Your task to perform on an android device: Go to Yahoo.com Image 0: 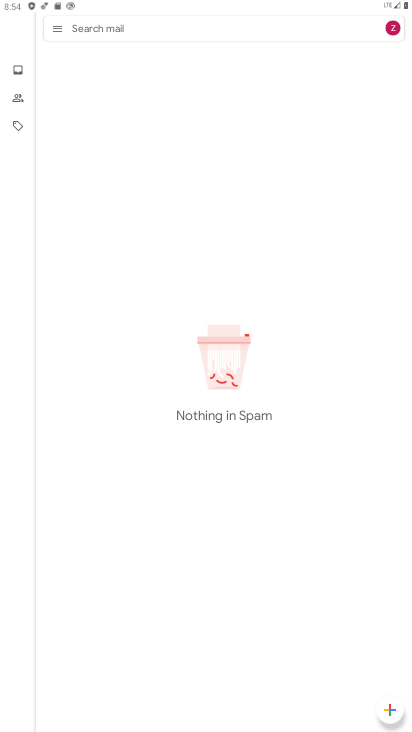
Step 0: press home button
Your task to perform on an android device: Go to Yahoo.com Image 1: 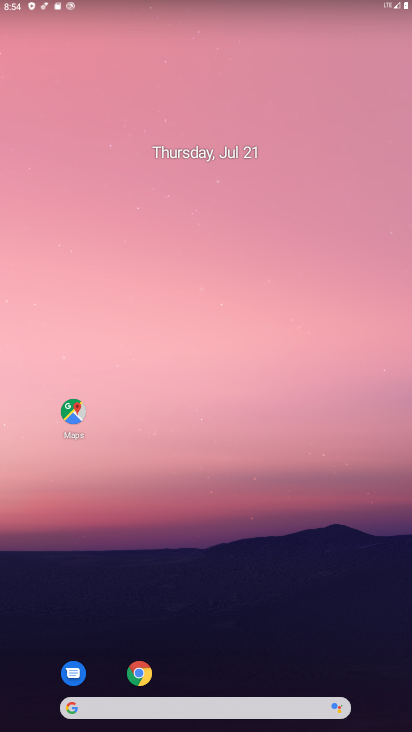
Step 1: click (140, 686)
Your task to perform on an android device: Go to Yahoo.com Image 2: 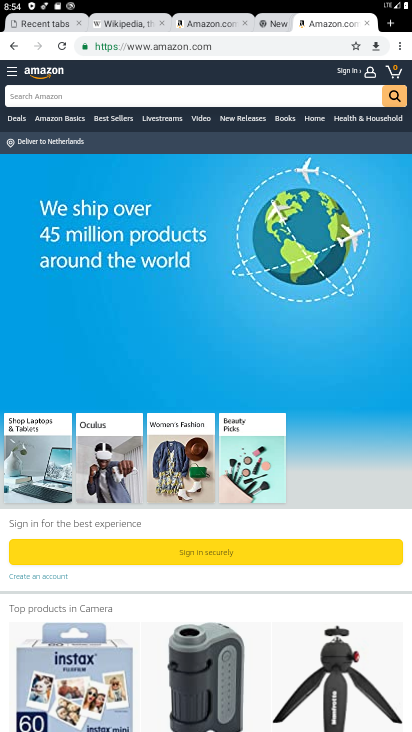
Step 2: click (393, 23)
Your task to perform on an android device: Go to Yahoo.com Image 3: 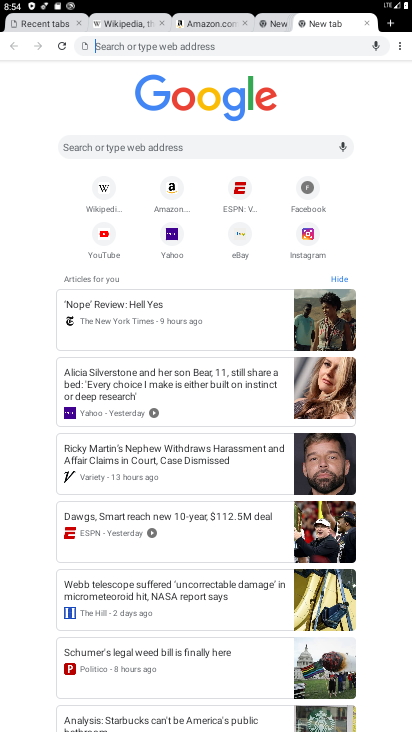
Step 3: click (173, 244)
Your task to perform on an android device: Go to Yahoo.com Image 4: 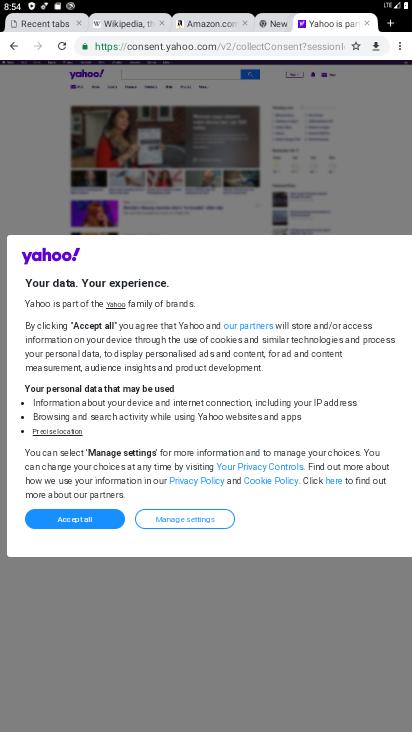
Step 4: task complete